Your task to perform on an android device: Is it going to rain this weekend? Image 0: 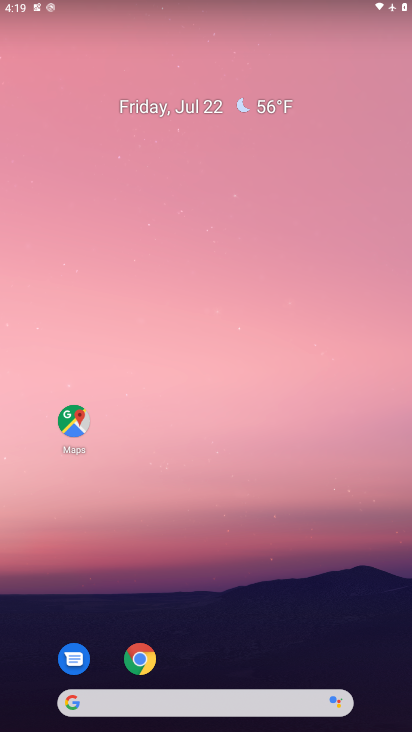
Step 0: press home button
Your task to perform on an android device: Is it going to rain this weekend? Image 1: 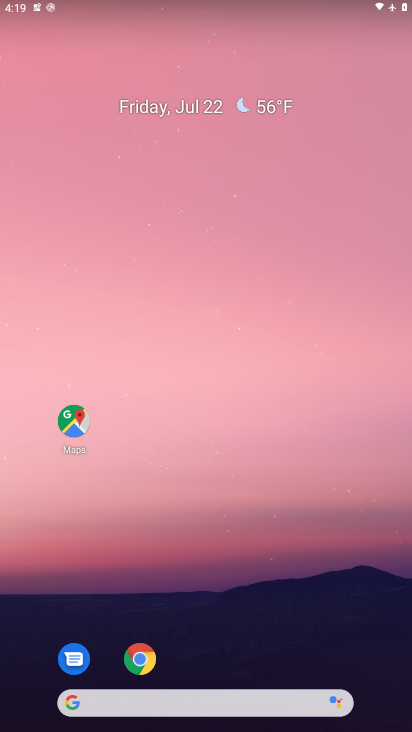
Step 1: drag from (237, 576) to (216, 262)
Your task to perform on an android device: Is it going to rain this weekend? Image 2: 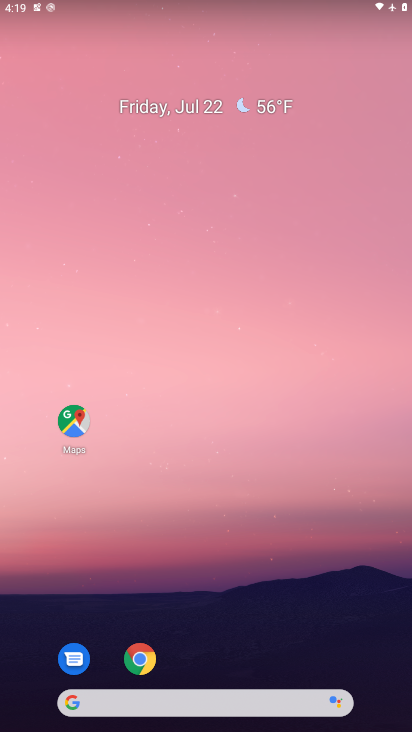
Step 2: drag from (169, 676) to (227, 143)
Your task to perform on an android device: Is it going to rain this weekend? Image 3: 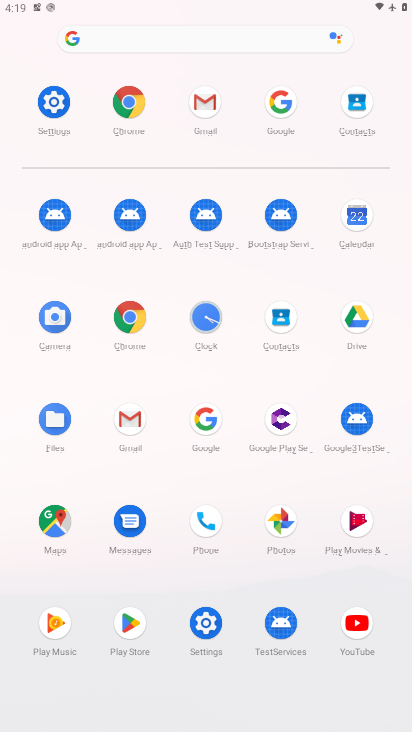
Step 3: click (210, 420)
Your task to perform on an android device: Is it going to rain this weekend? Image 4: 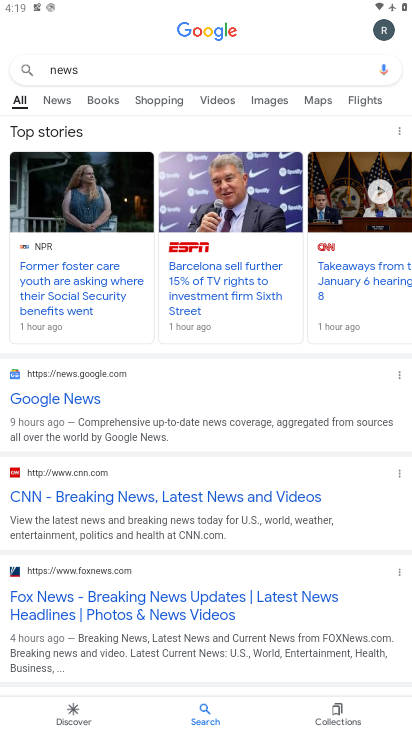
Step 4: click (89, 68)
Your task to perform on an android device: Is it going to rain this weekend? Image 5: 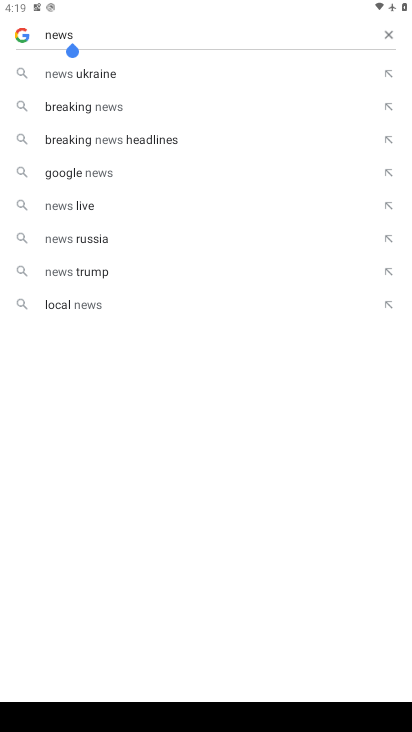
Step 5: click (386, 36)
Your task to perform on an android device: Is it going to rain this weekend? Image 6: 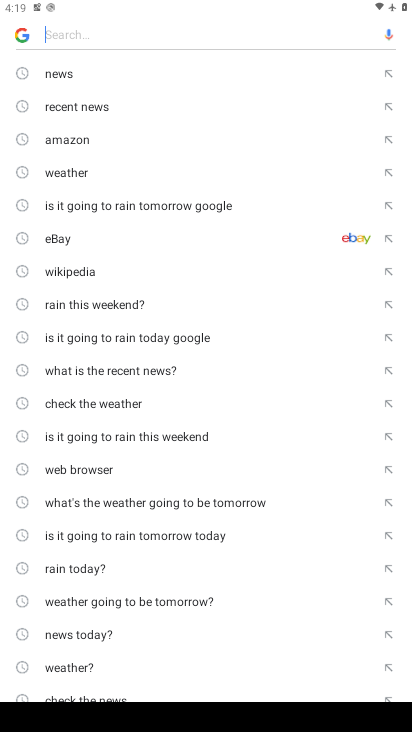
Step 6: click (102, 434)
Your task to perform on an android device: Is it going to rain this weekend? Image 7: 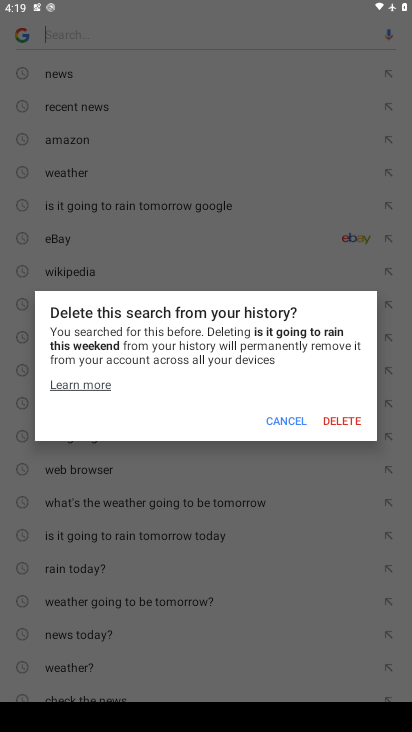
Step 7: click (310, 11)
Your task to perform on an android device: Is it going to rain this weekend? Image 8: 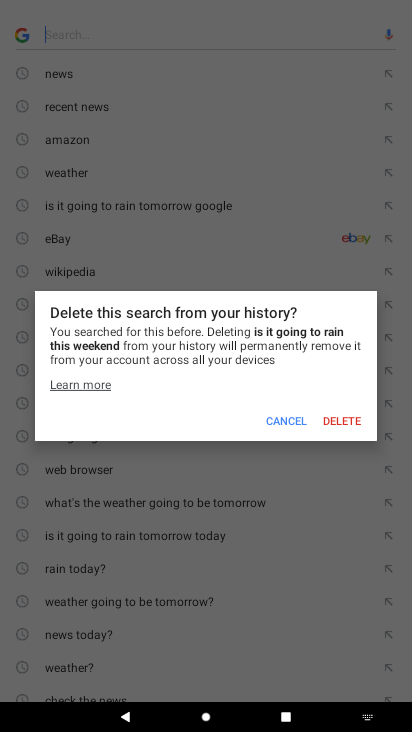
Step 8: click (275, 424)
Your task to perform on an android device: Is it going to rain this weekend? Image 9: 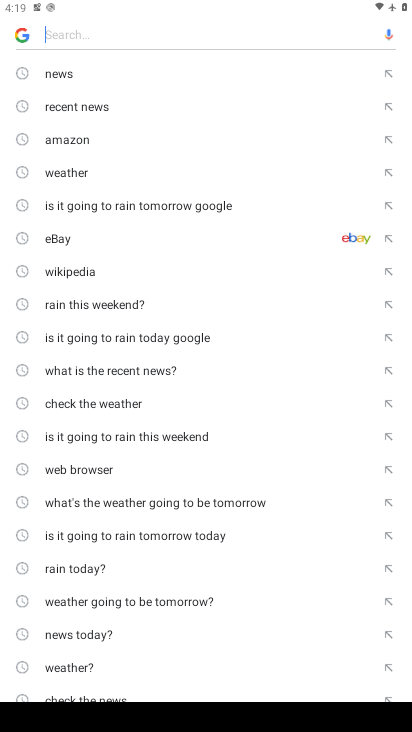
Step 9: click (287, 422)
Your task to perform on an android device: Is it going to rain this weekend? Image 10: 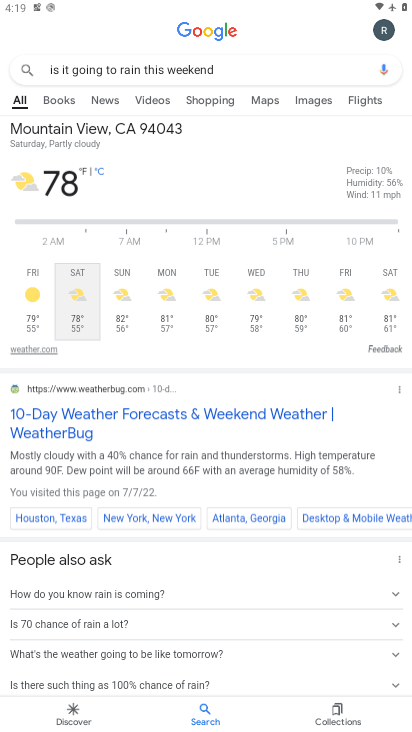
Step 10: task complete